Your task to perform on an android device: toggle airplane mode Image 0: 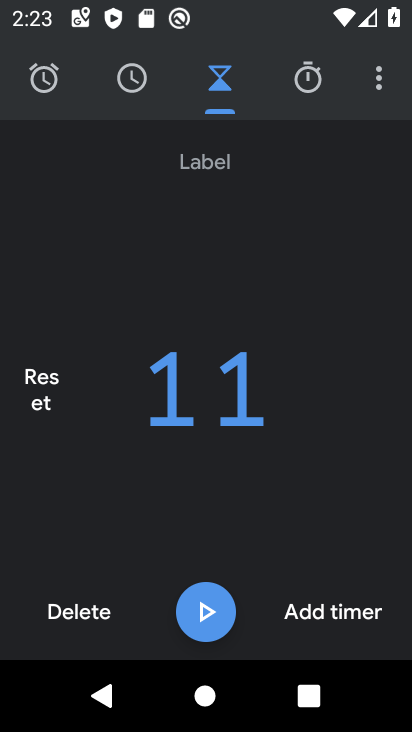
Step 0: press home button
Your task to perform on an android device: toggle airplane mode Image 1: 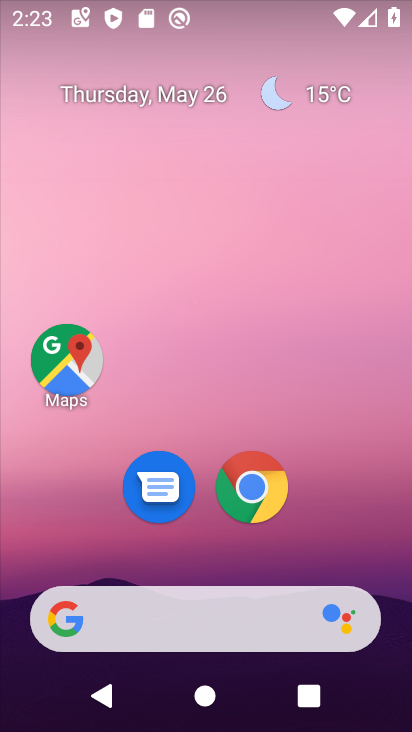
Step 1: drag from (217, 508) to (210, 235)
Your task to perform on an android device: toggle airplane mode Image 2: 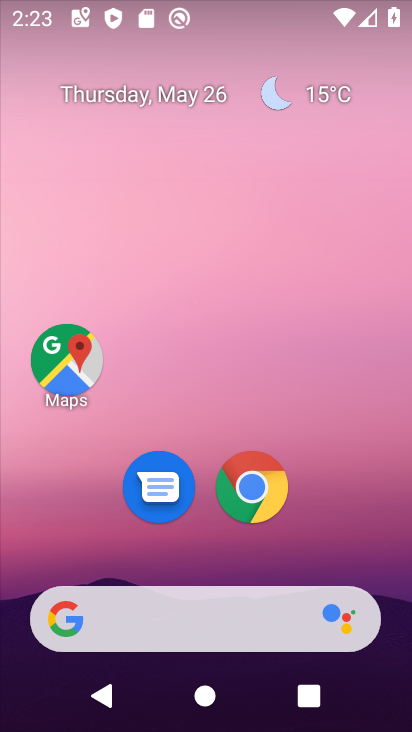
Step 2: drag from (202, 569) to (196, 189)
Your task to perform on an android device: toggle airplane mode Image 3: 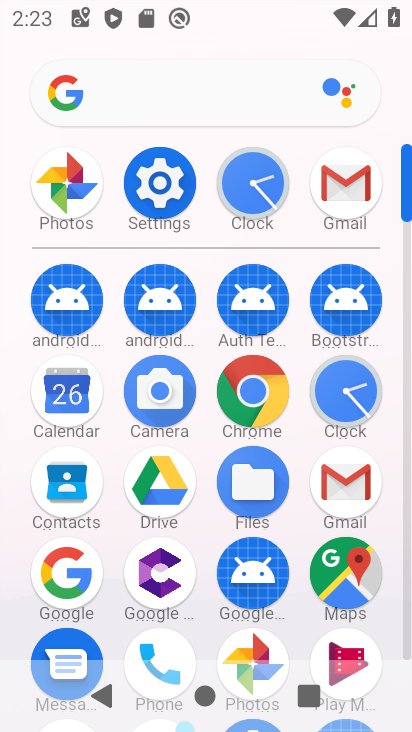
Step 3: click (175, 180)
Your task to perform on an android device: toggle airplane mode Image 4: 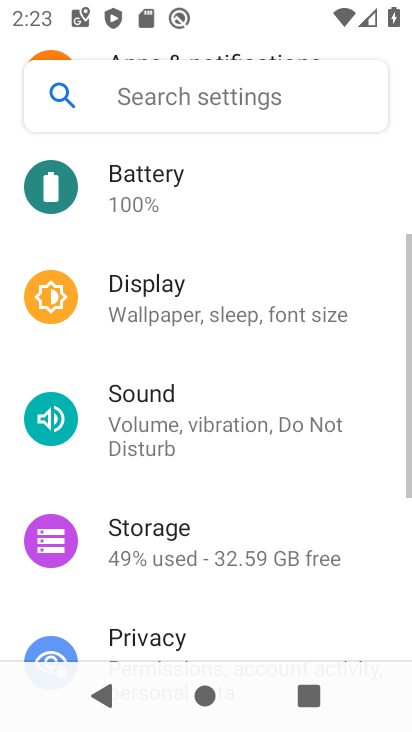
Step 4: drag from (182, 181) to (197, 447)
Your task to perform on an android device: toggle airplane mode Image 5: 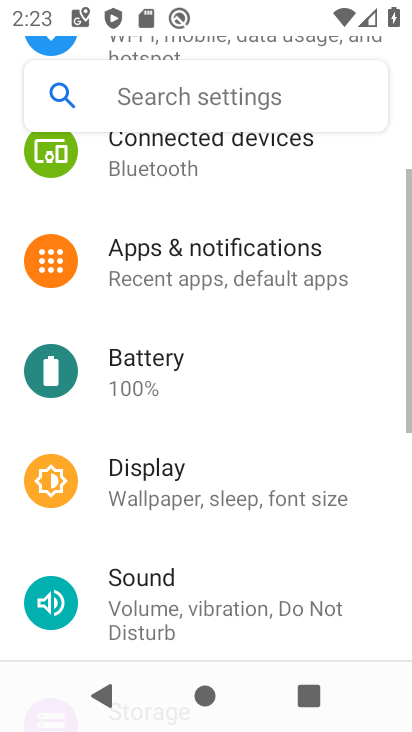
Step 5: drag from (210, 222) to (227, 482)
Your task to perform on an android device: toggle airplane mode Image 6: 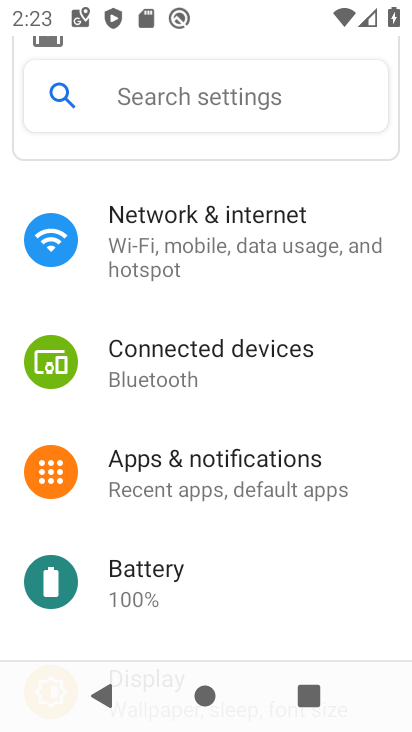
Step 6: click (216, 209)
Your task to perform on an android device: toggle airplane mode Image 7: 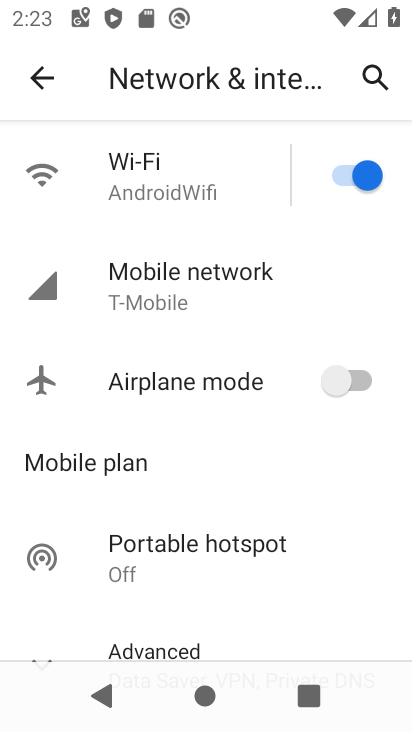
Step 7: click (361, 382)
Your task to perform on an android device: toggle airplane mode Image 8: 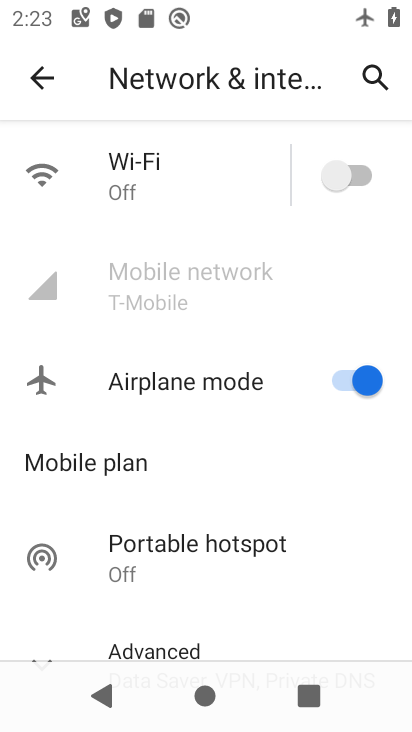
Step 8: task complete